Your task to perform on an android device: Go to calendar. Show me events next week Image 0: 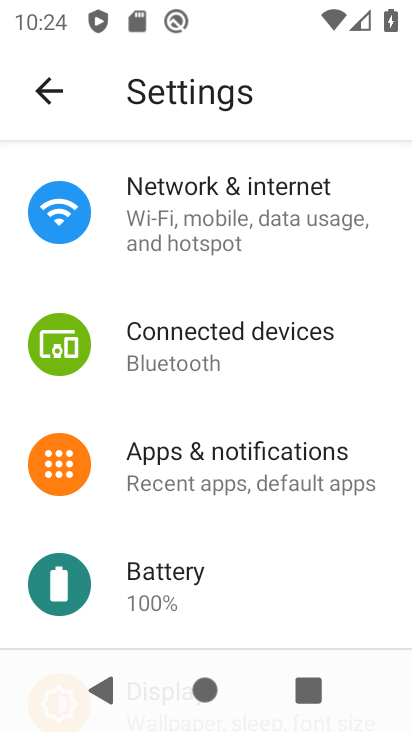
Step 0: press home button
Your task to perform on an android device: Go to calendar. Show me events next week Image 1: 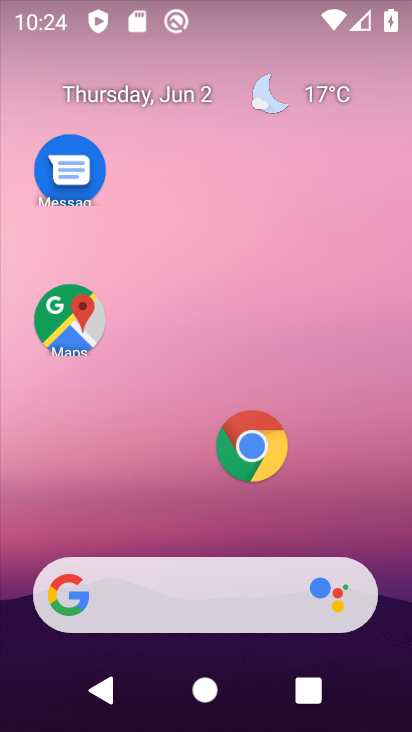
Step 1: drag from (350, 460) to (200, 68)
Your task to perform on an android device: Go to calendar. Show me events next week Image 2: 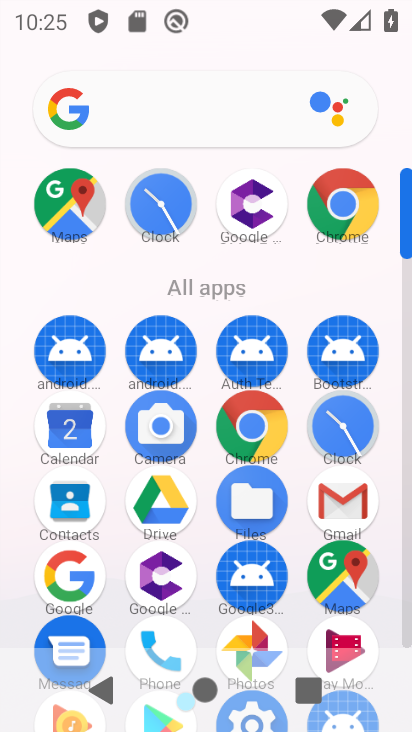
Step 2: click (83, 433)
Your task to perform on an android device: Go to calendar. Show me events next week Image 3: 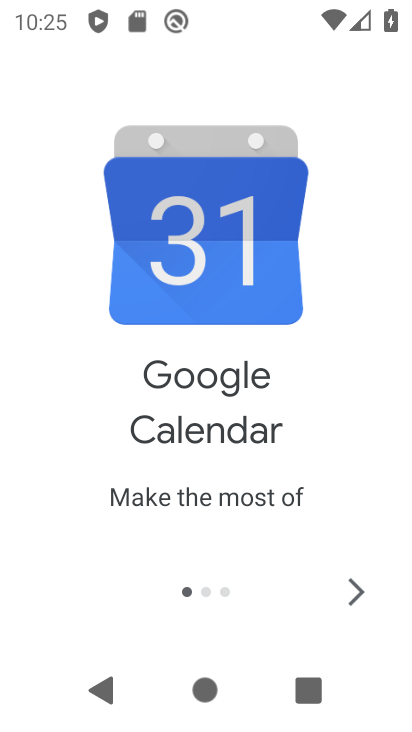
Step 3: click (355, 605)
Your task to perform on an android device: Go to calendar. Show me events next week Image 4: 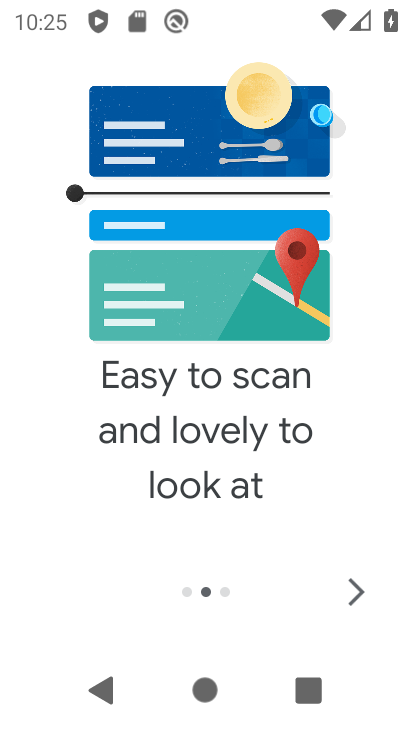
Step 4: click (355, 605)
Your task to perform on an android device: Go to calendar. Show me events next week Image 5: 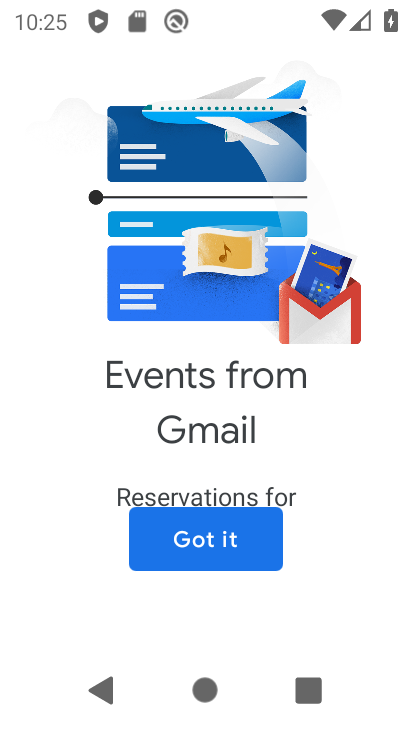
Step 5: click (216, 567)
Your task to perform on an android device: Go to calendar. Show me events next week Image 6: 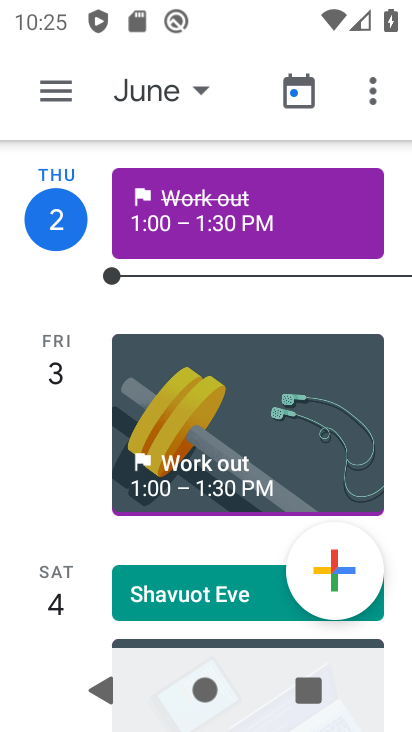
Step 6: click (175, 104)
Your task to perform on an android device: Go to calendar. Show me events next week Image 7: 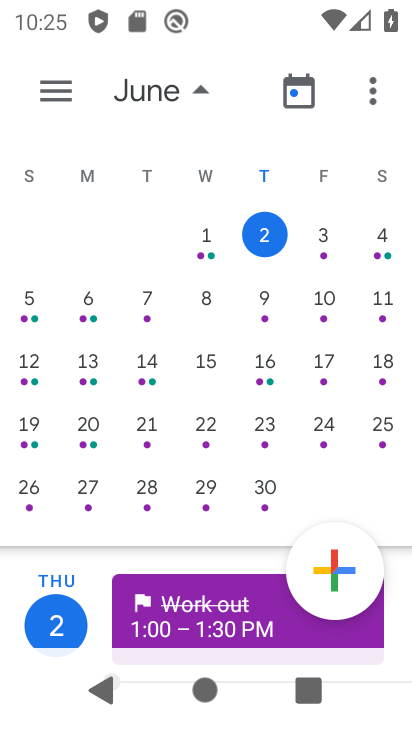
Step 7: click (83, 293)
Your task to perform on an android device: Go to calendar. Show me events next week Image 8: 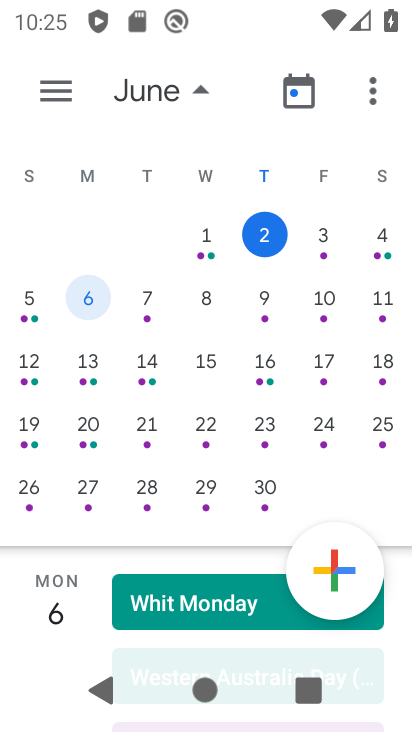
Step 8: click (195, 86)
Your task to perform on an android device: Go to calendar. Show me events next week Image 9: 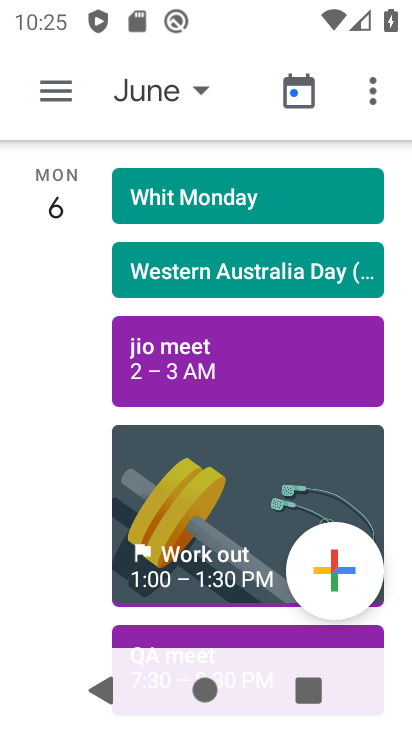
Step 9: task complete